Your task to perform on an android device: Go to accessibility settings Image 0: 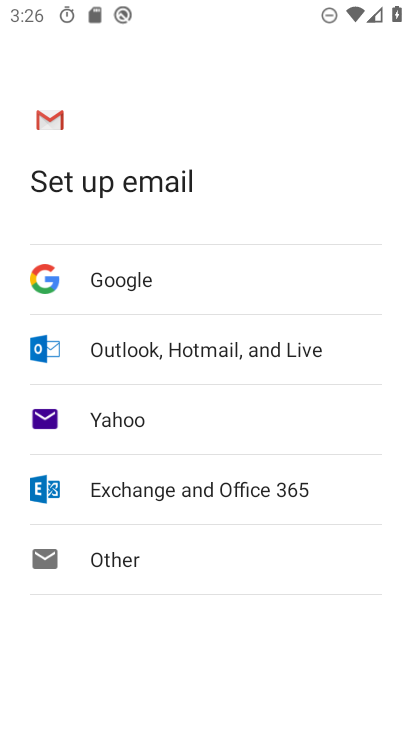
Step 0: press home button
Your task to perform on an android device: Go to accessibility settings Image 1: 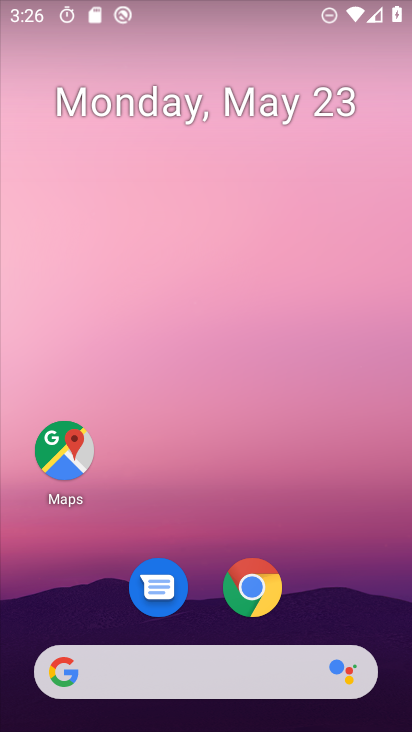
Step 1: drag from (202, 627) to (234, 4)
Your task to perform on an android device: Go to accessibility settings Image 2: 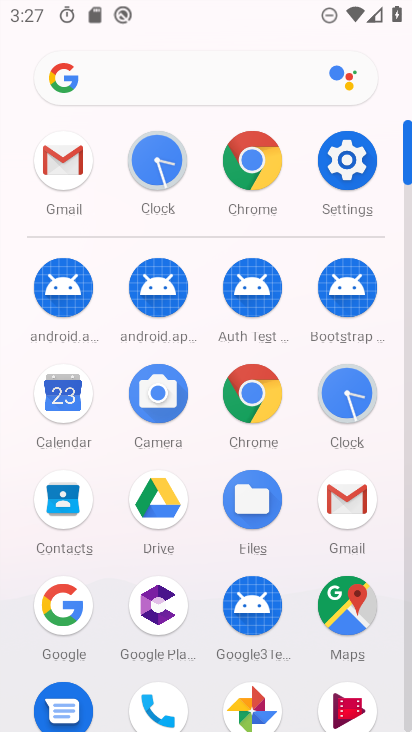
Step 2: click (352, 171)
Your task to perform on an android device: Go to accessibility settings Image 3: 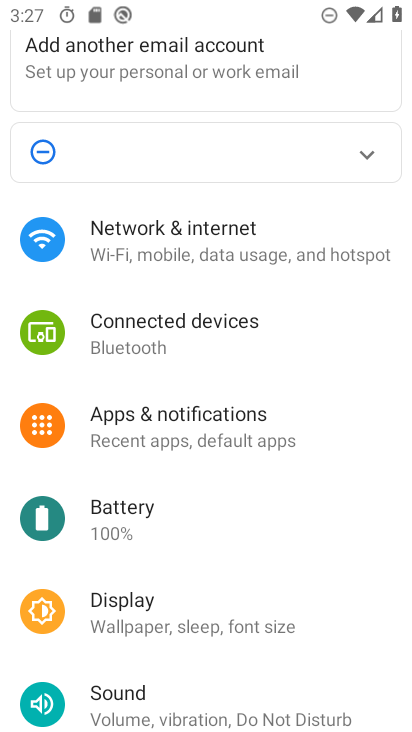
Step 3: drag from (202, 638) to (292, 247)
Your task to perform on an android device: Go to accessibility settings Image 4: 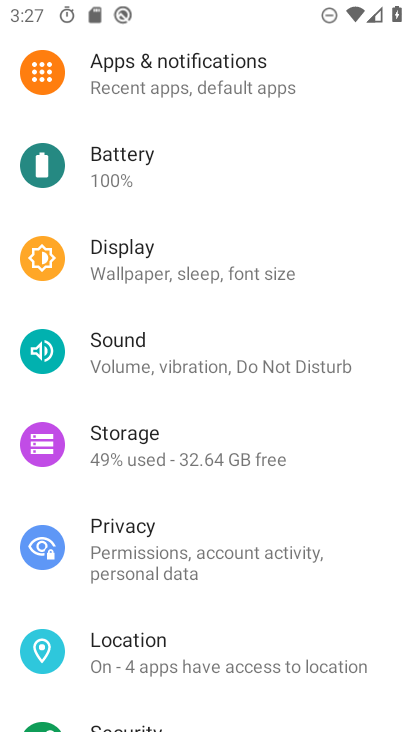
Step 4: drag from (202, 624) to (259, 209)
Your task to perform on an android device: Go to accessibility settings Image 5: 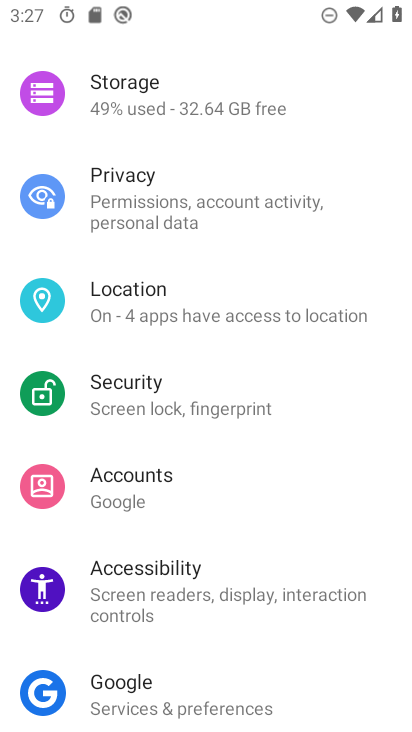
Step 5: click (167, 567)
Your task to perform on an android device: Go to accessibility settings Image 6: 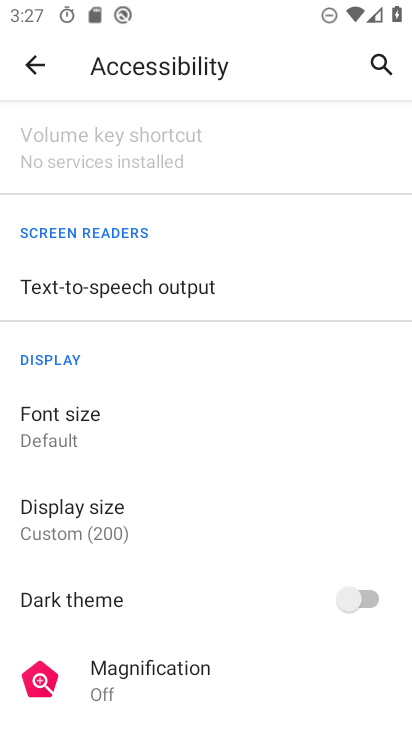
Step 6: task complete